Your task to perform on an android device: Open calendar and show me the second week of next month Image 0: 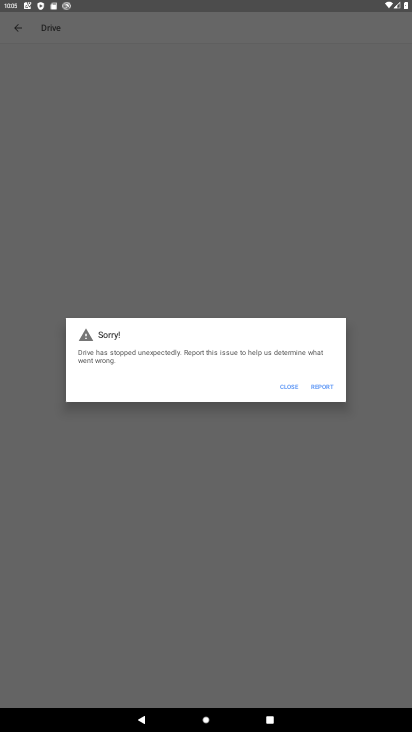
Step 0: task complete